Your task to perform on an android device: Open ESPN.com Image 0: 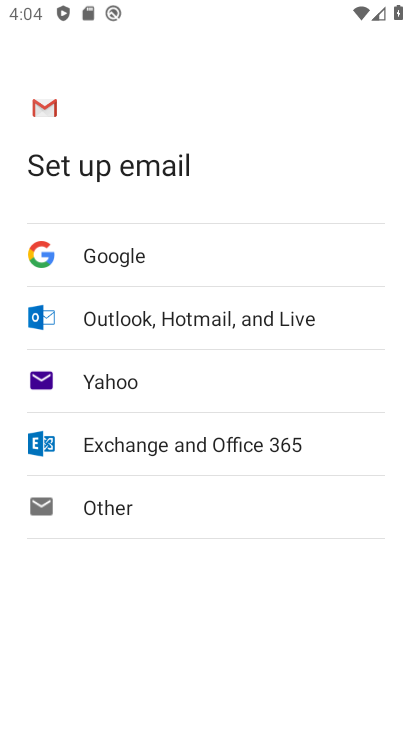
Step 0: press home button
Your task to perform on an android device: Open ESPN.com Image 1: 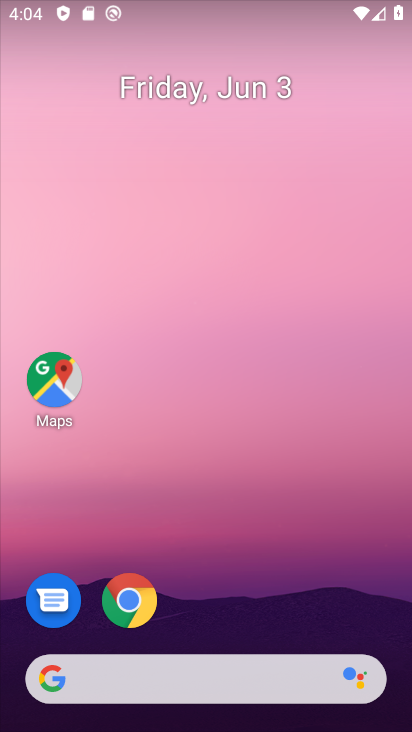
Step 1: click (131, 584)
Your task to perform on an android device: Open ESPN.com Image 2: 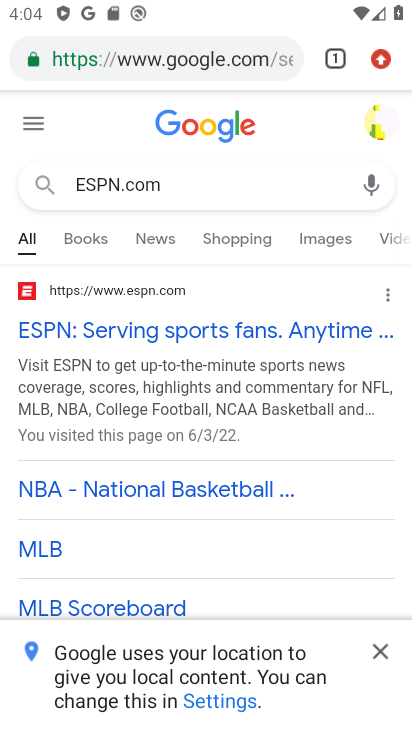
Step 2: task complete